Your task to perform on an android device: Go to notification settings Image 0: 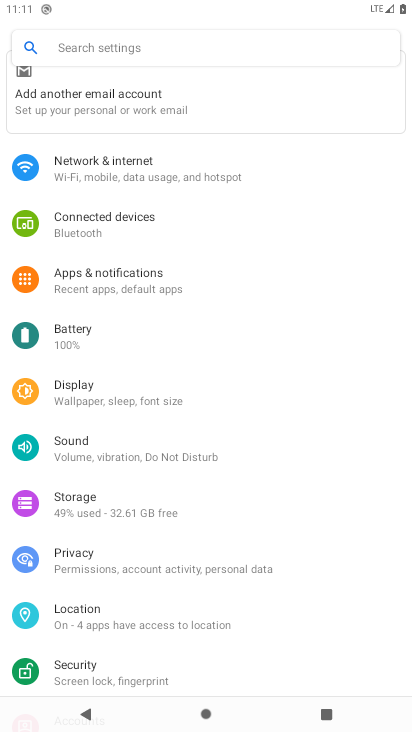
Step 0: press home button
Your task to perform on an android device: Go to notification settings Image 1: 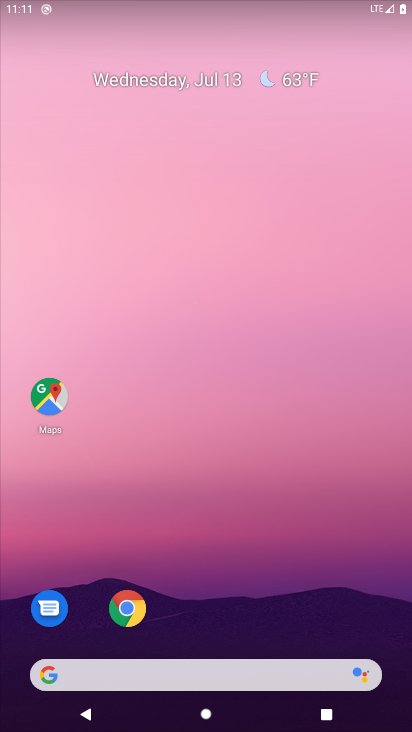
Step 1: drag from (199, 602) to (312, 93)
Your task to perform on an android device: Go to notification settings Image 2: 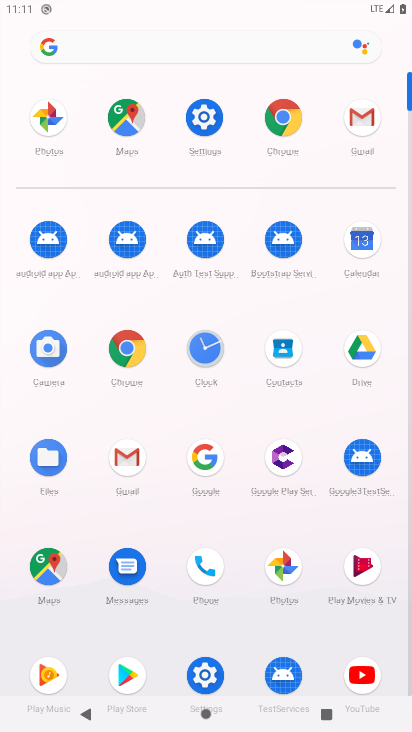
Step 2: click (206, 673)
Your task to perform on an android device: Go to notification settings Image 3: 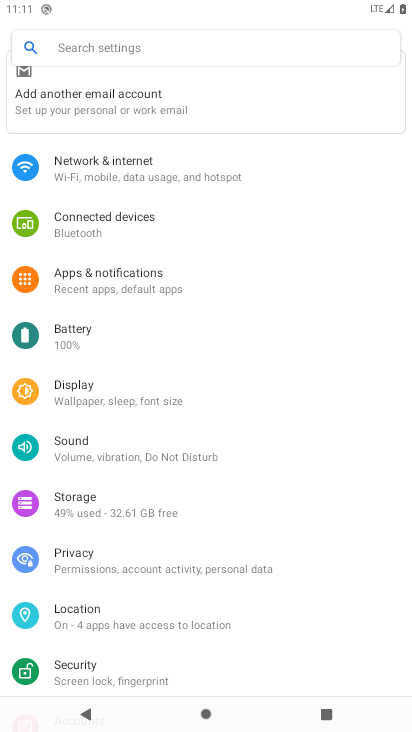
Step 3: click (140, 279)
Your task to perform on an android device: Go to notification settings Image 4: 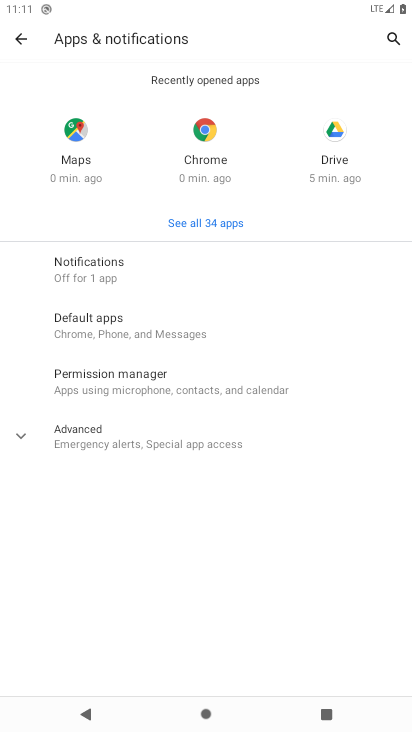
Step 4: click (83, 260)
Your task to perform on an android device: Go to notification settings Image 5: 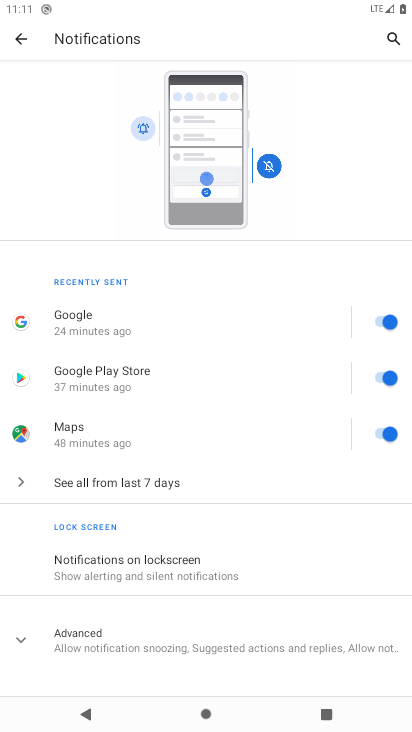
Step 5: task complete